Your task to perform on an android device: Empty the shopping cart on amazon.com. Image 0: 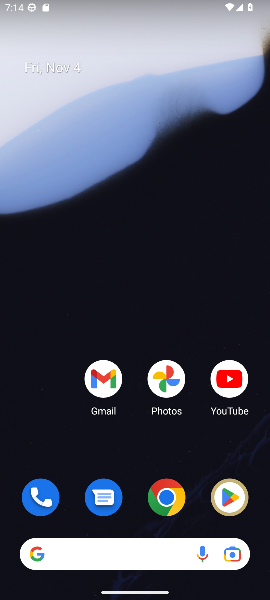
Step 0: click (171, 501)
Your task to perform on an android device: Empty the shopping cart on amazon.com. Image 1: 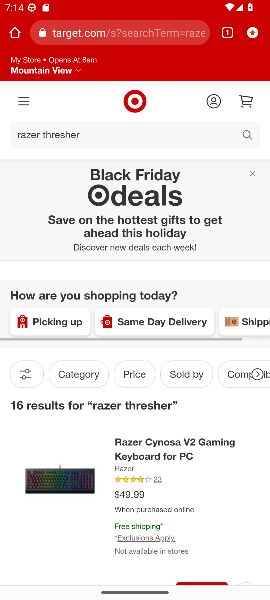
Step 1: click (79, 23)
Your task to perform on an android device: Empty the shopping cart on amazon.com. Image 2: 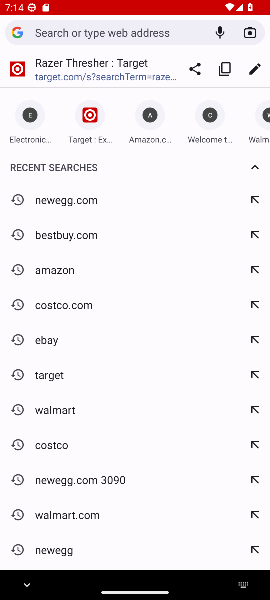
Step 2: click (61, 271)
Your task to perform on an android device: Empty the shopping cart on amazon.com. Image 3: 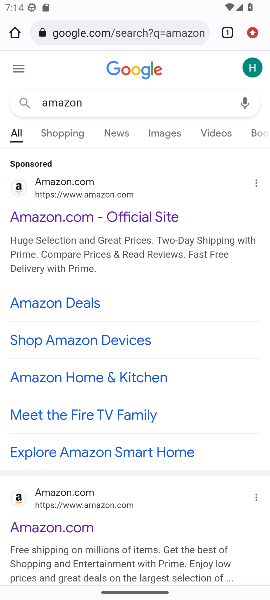
Step 3: click (70, 502)
Your task to perform on an android device: Empty the shopping cart on amazon.com. Image 4: 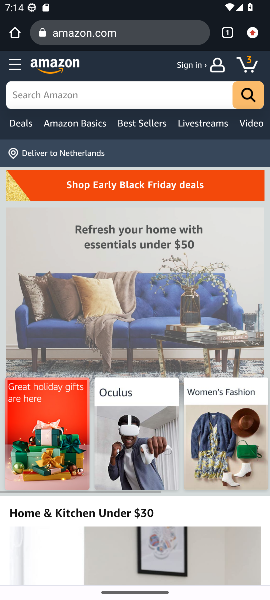
Step 4: click (251, 68)
Your task to perform on an android device: Empty the shopping cart on amazon.com. Image 5: 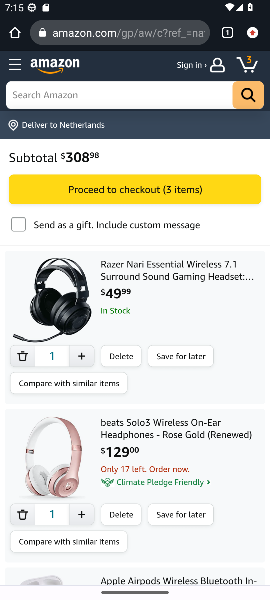
Step 5: click (124, 359)
Your task to perform on an android device: Empty the shopping cart on amazon.com. Image 6: 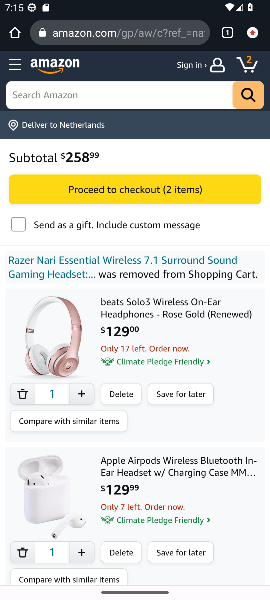
Step 6: click (125, 391)
Your task to perform on an android device: Empty the shopping cart on amazon.com. Image 7: 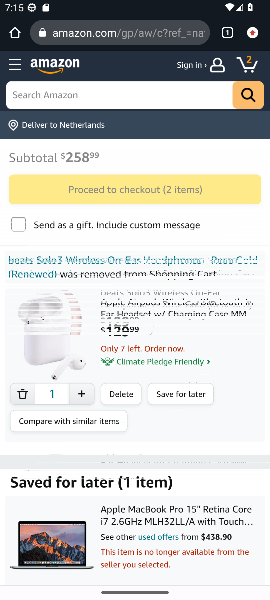
Step 7: click (125, 391)
Your task to perform on an android device: Empty the shopping cart on amazon.com. Image 8: 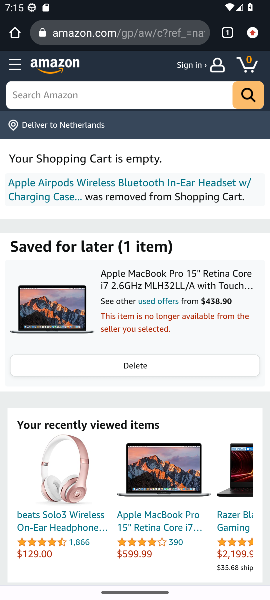
Step 8: task complete